Your task to perform on an android device: Open Google Maps Image 0: 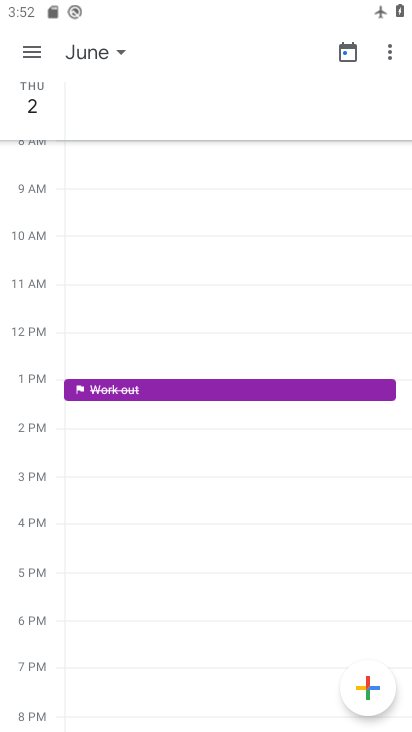
Step 0: press home button
Your task to perform on an android device: Open Google Maps Image 1: 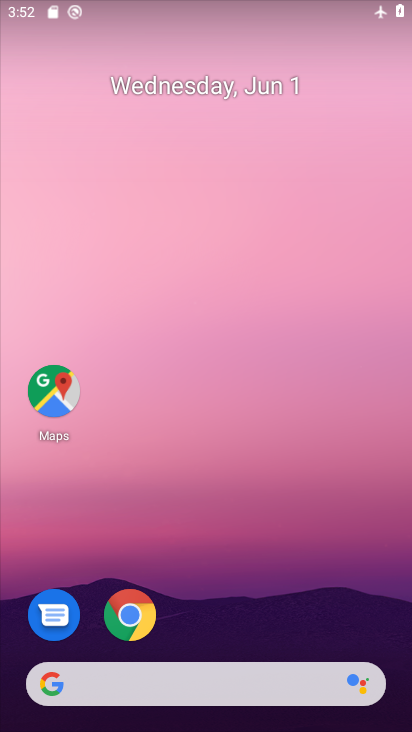
Step 1: drag from (309, 569) to (310, 72)
Your task to perform on an android device: Open Google Maps Image 2: 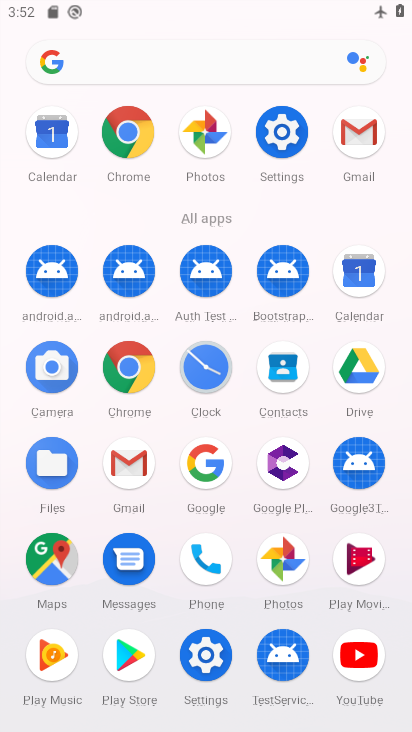
Step 2: click (51, 551)
Your task to perform on an android device: Open Google Maps Image 3: 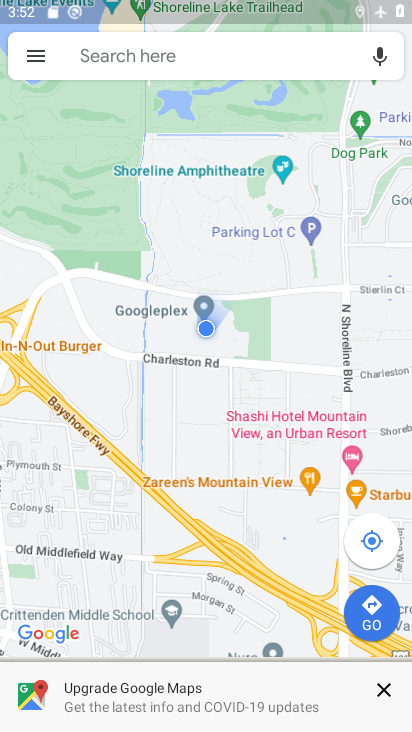
Step 3: task complete